Your task to perform on an android device: turn on sleep mode Image 0: 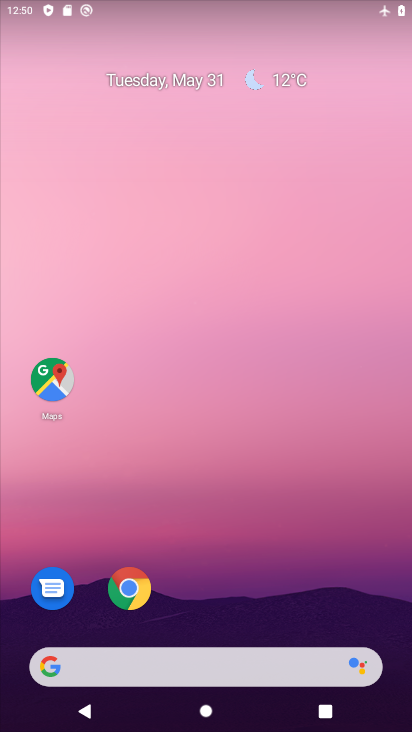
Step 0: drag from (399, 721) to (269, 83)
Your task to perform on an android device: turn on sleep mode Image 1: 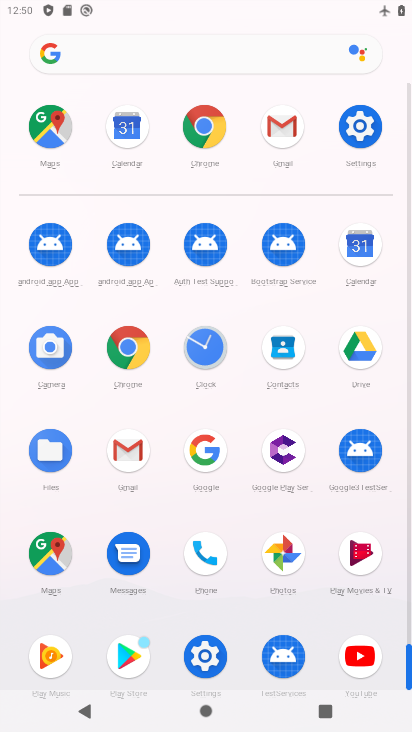
Step 1: click (356, 128)
Your task to perform on an android device: turn on sleep mode Image 2: 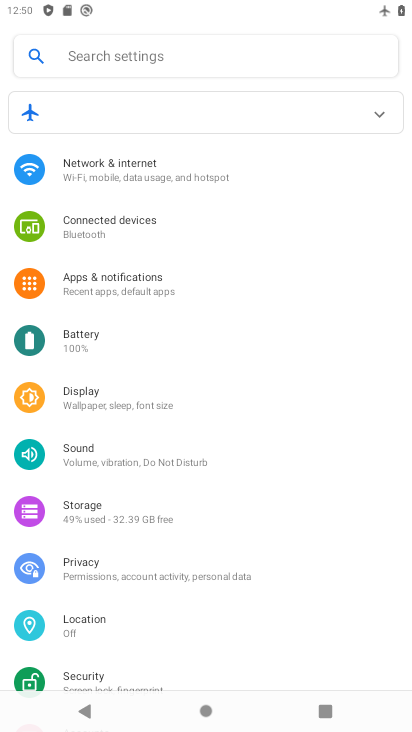
Step 2: click (85, 180)
Your task to perform on an android device: turn on sleep mode Image 3: 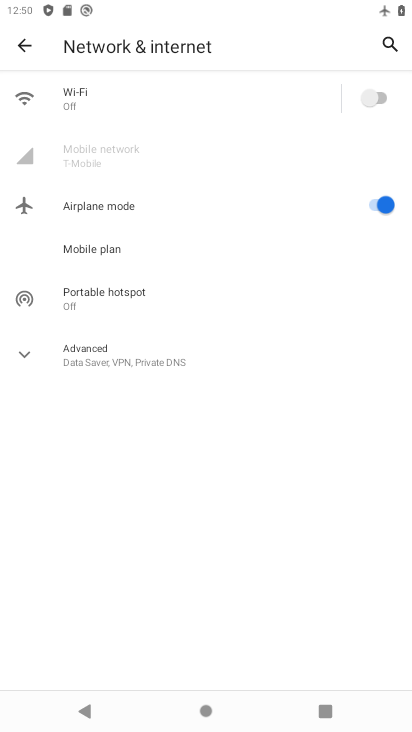
Step 3: click (374, 200)
Your task to perform on an android device: turn on sleep mode Image 4: 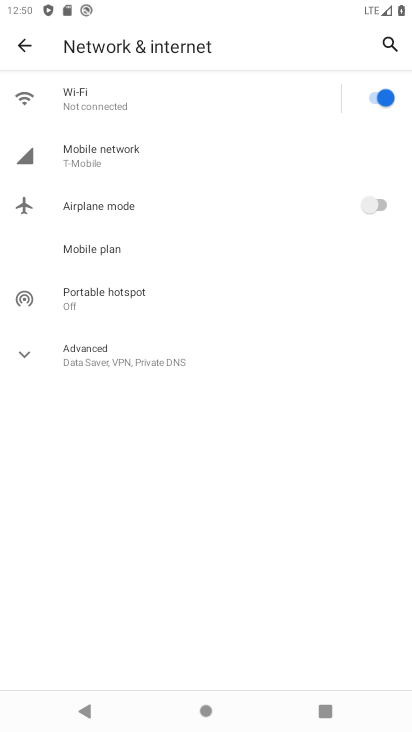
Step 4: click (378, 97)
Your task to perform on an android device: turn on sleep mode Image 5: 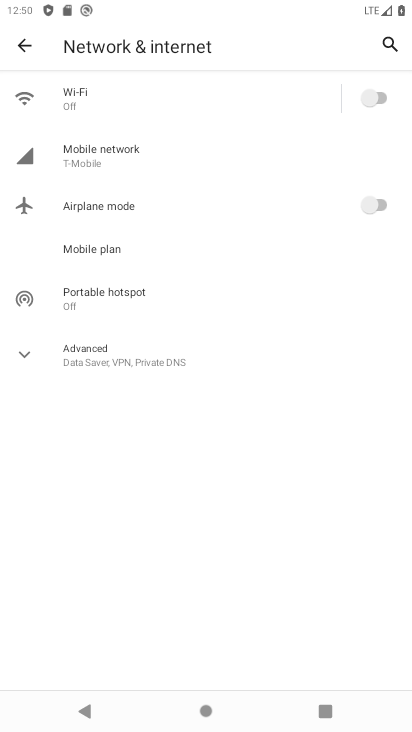
Step 5: click (385, 98)
Your task to perform on an android device: turn on sleep mode Image 6: 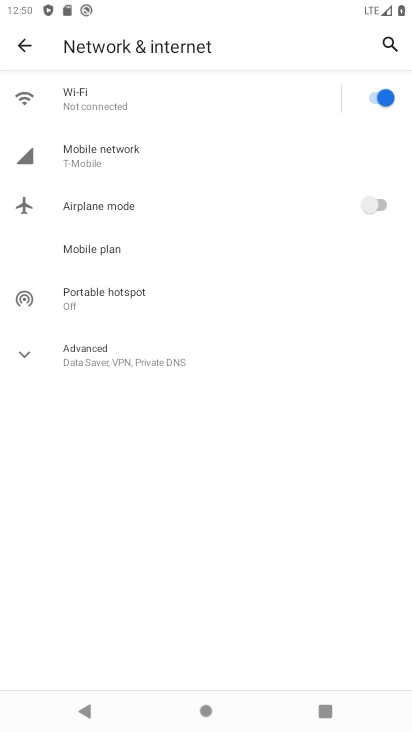
Step 6: click (29, 47)
Your task to perform on an android device: turn on sleep mode Image 7: 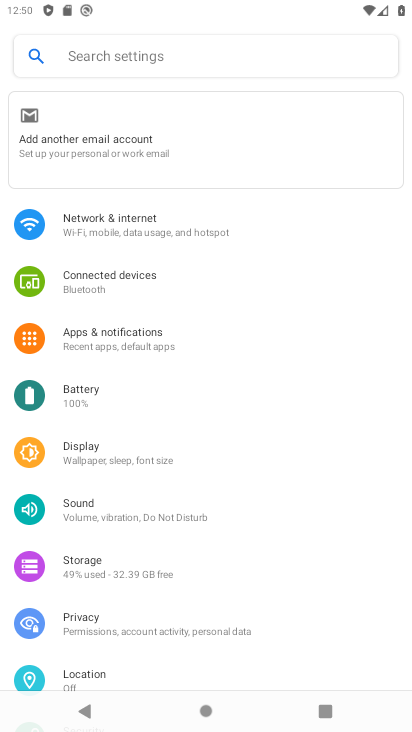
Step 7: click (93, 458)
Your task to perform on an android device: turn on sleep mode Image 8: 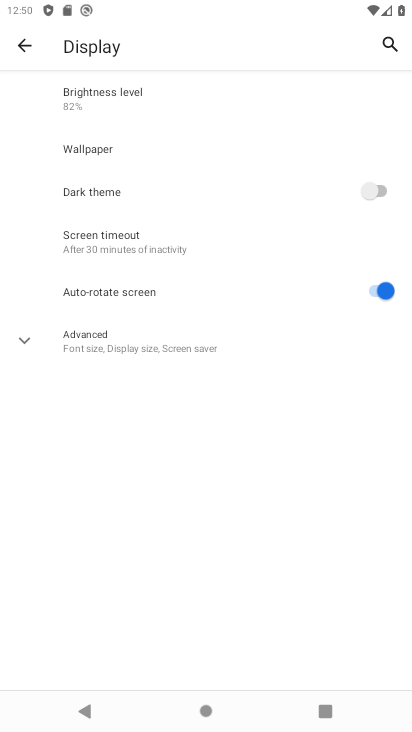
Step 8: click (126, 235)
Your task to perform on an android device: turn on sleep mode Image 9: 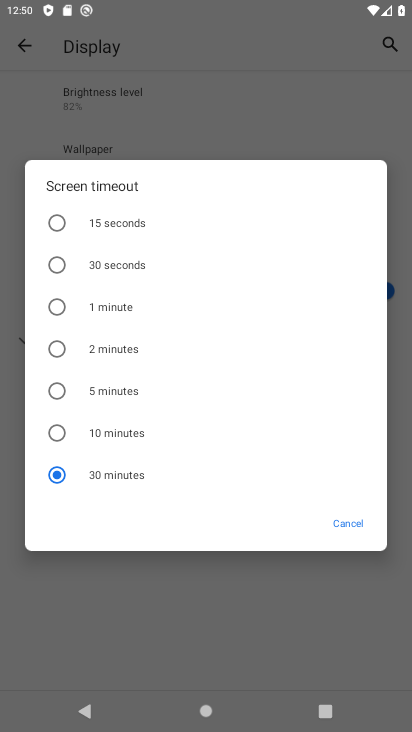
Step 9: task complete